Your task to perform on an android device: Go to Wikipedia Image 0: 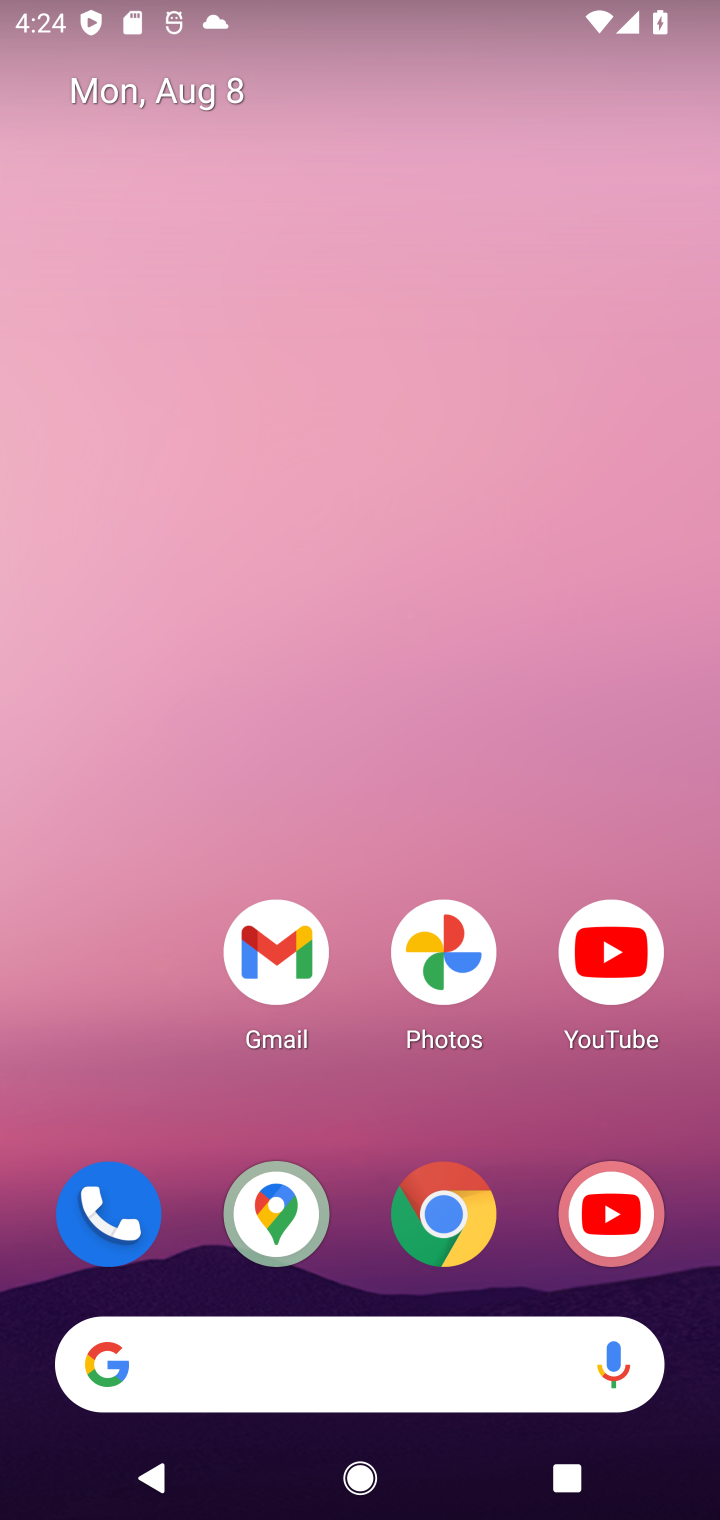
Step 0: click (448, 1228)
Your task to perform on an android device: Go to Wikipedia Image 1: 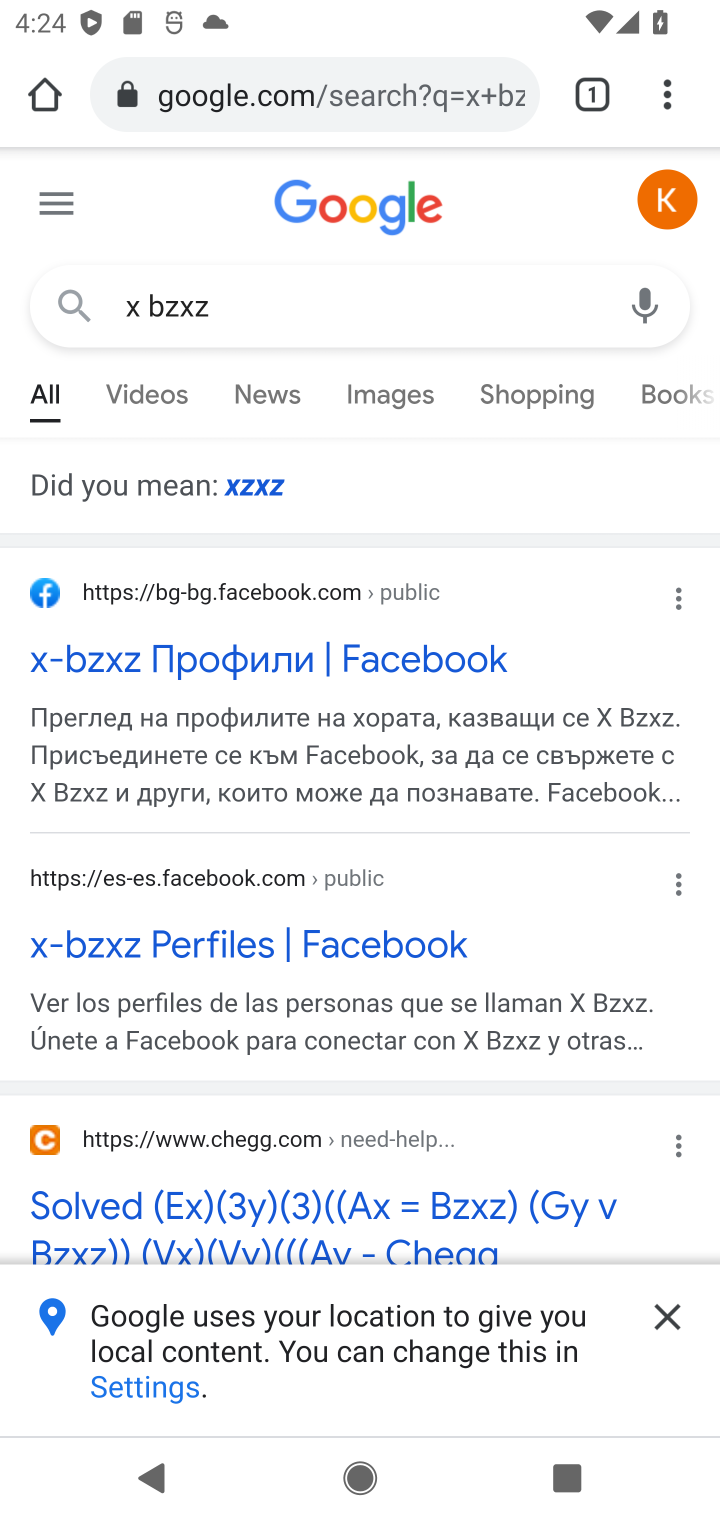
Step 1: click (664, 107)
Your task to perform on an android device: Go to Wikipedia Image 2: 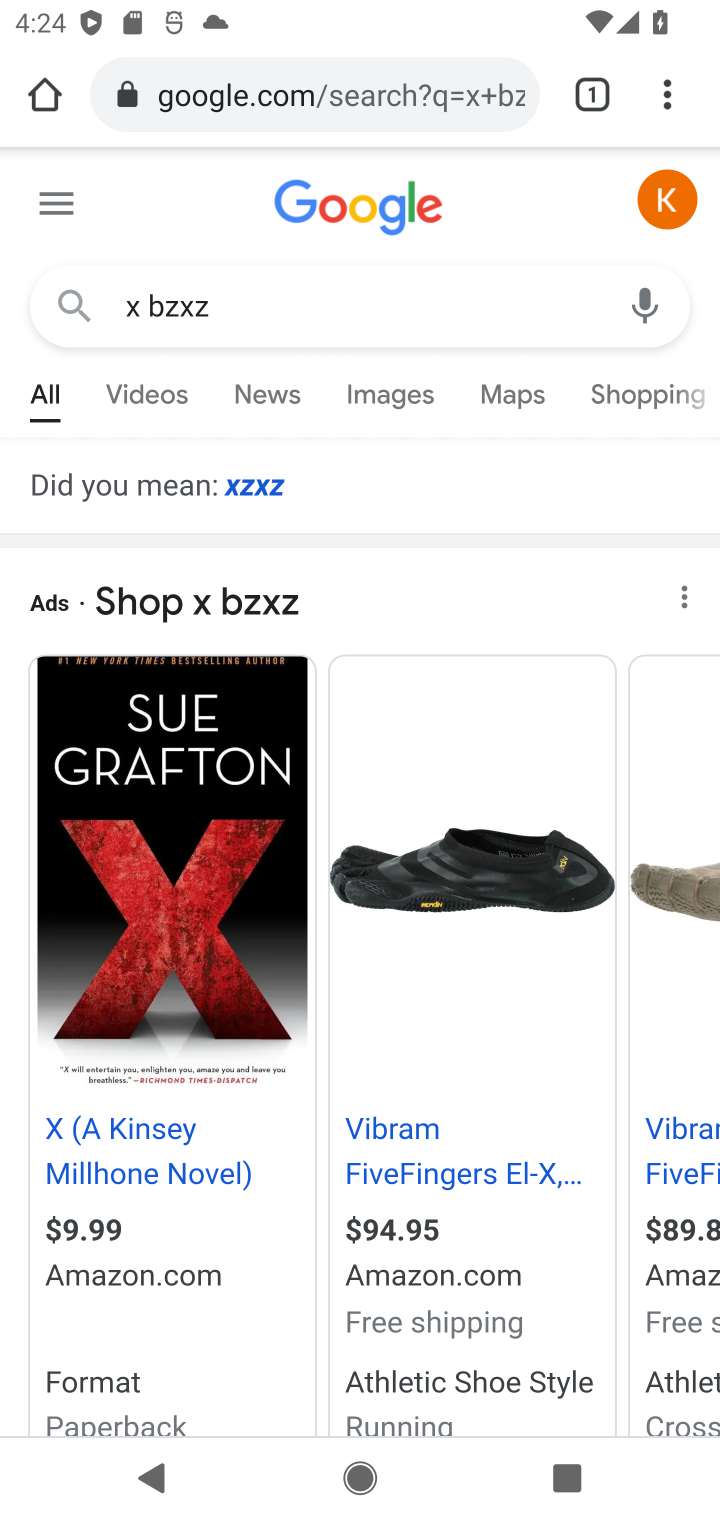
Step 2: drag from (665, 105) to (350, 334)
Your task to perform on an android device: Go to Wikipedia Image 3: 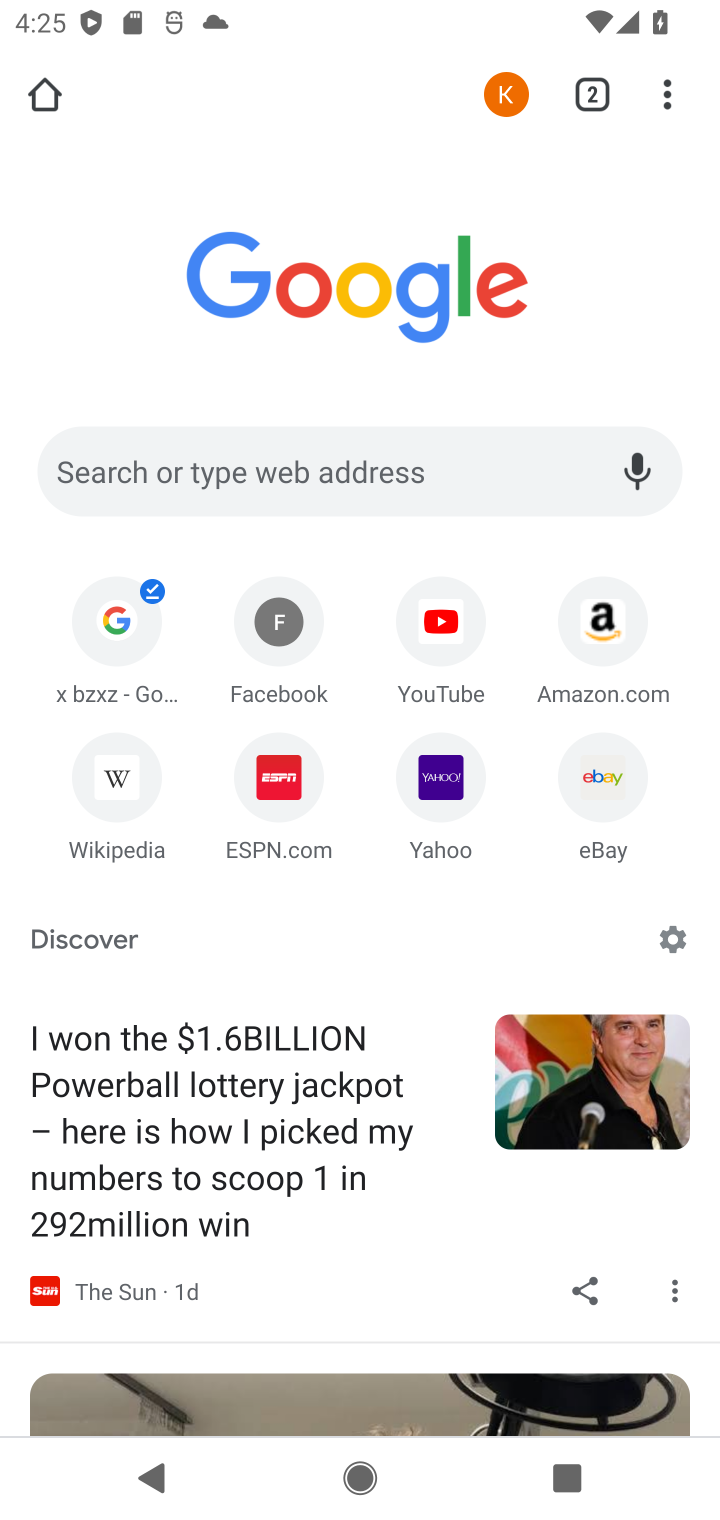
Step 3: click (128, 779)
Your task to perform on an android device: Go to Wikipedia Image 4: 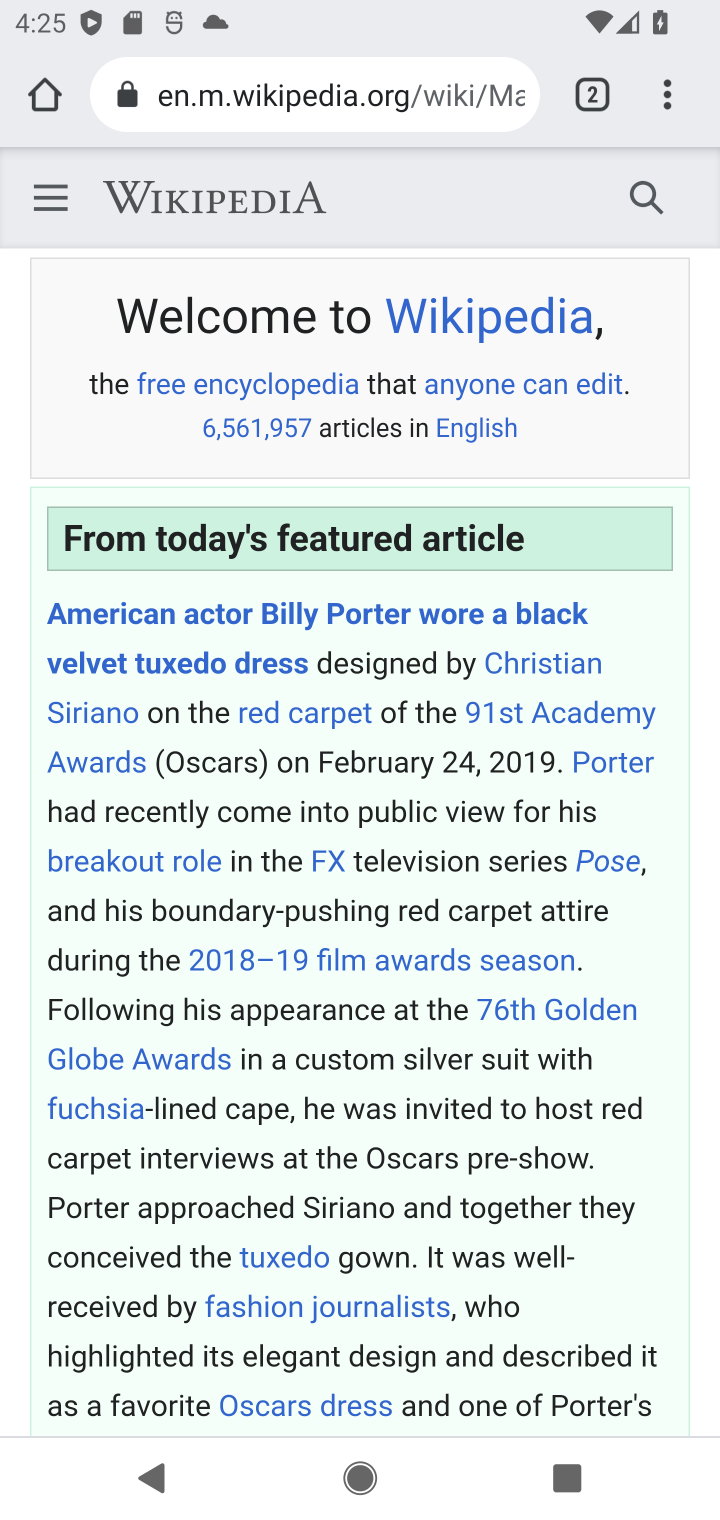
Step 4: task complete